Your task to perform on an android device: change notification settings in the gmail app Image 0: 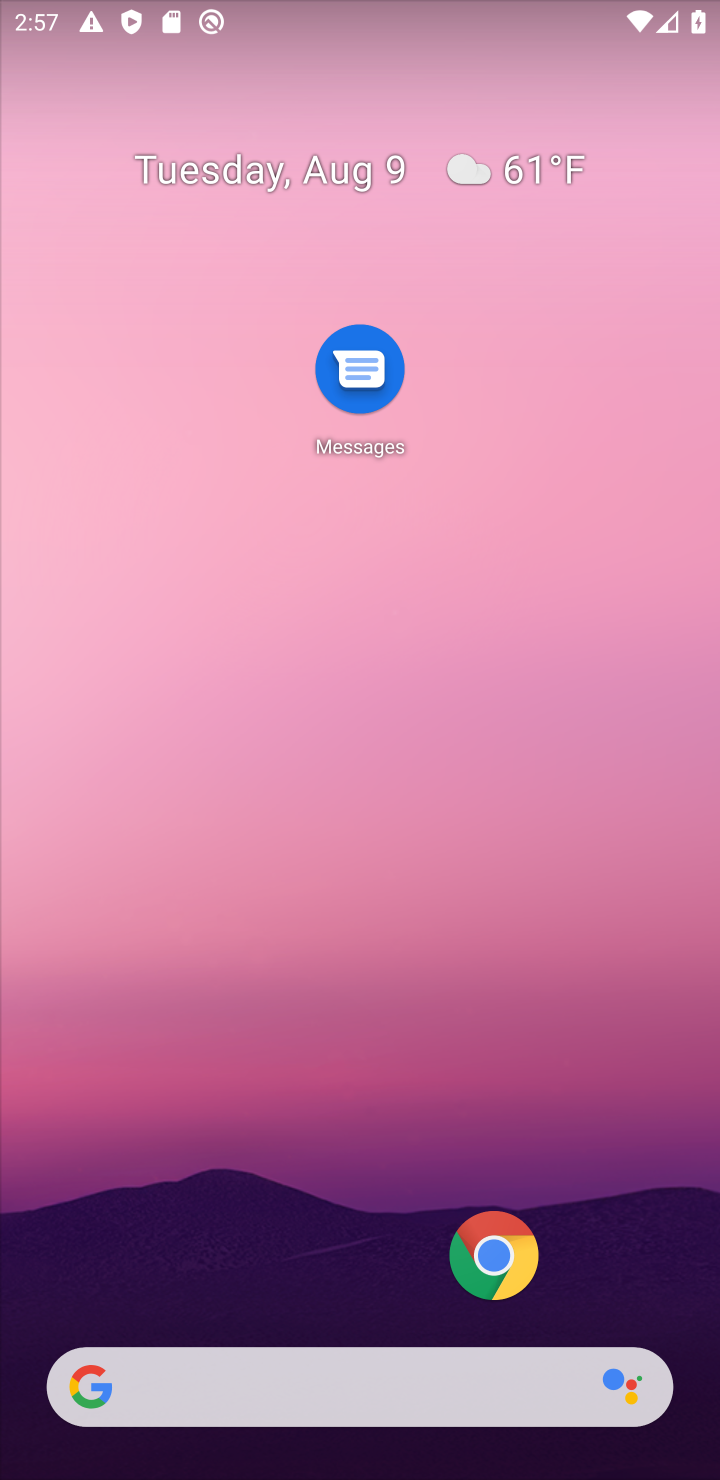
Step 0: drag from (175, 961) to (147, 458)
Your task to perform on an android device: change notification settings in the gmail app Image 1: 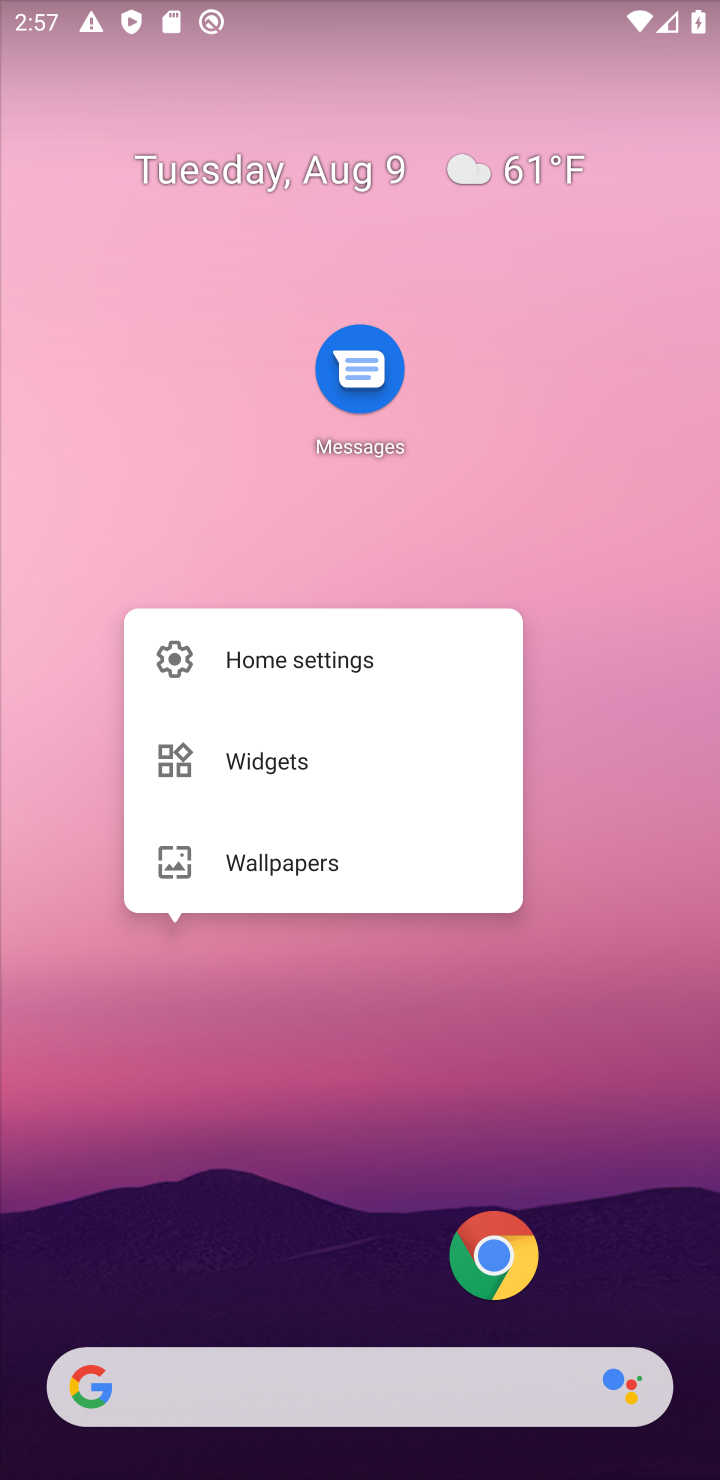
Step 1: drag from (274, 1330) to (293, 537)
Your task to perform on an android device: change notification settings in the gmail app Image 2: 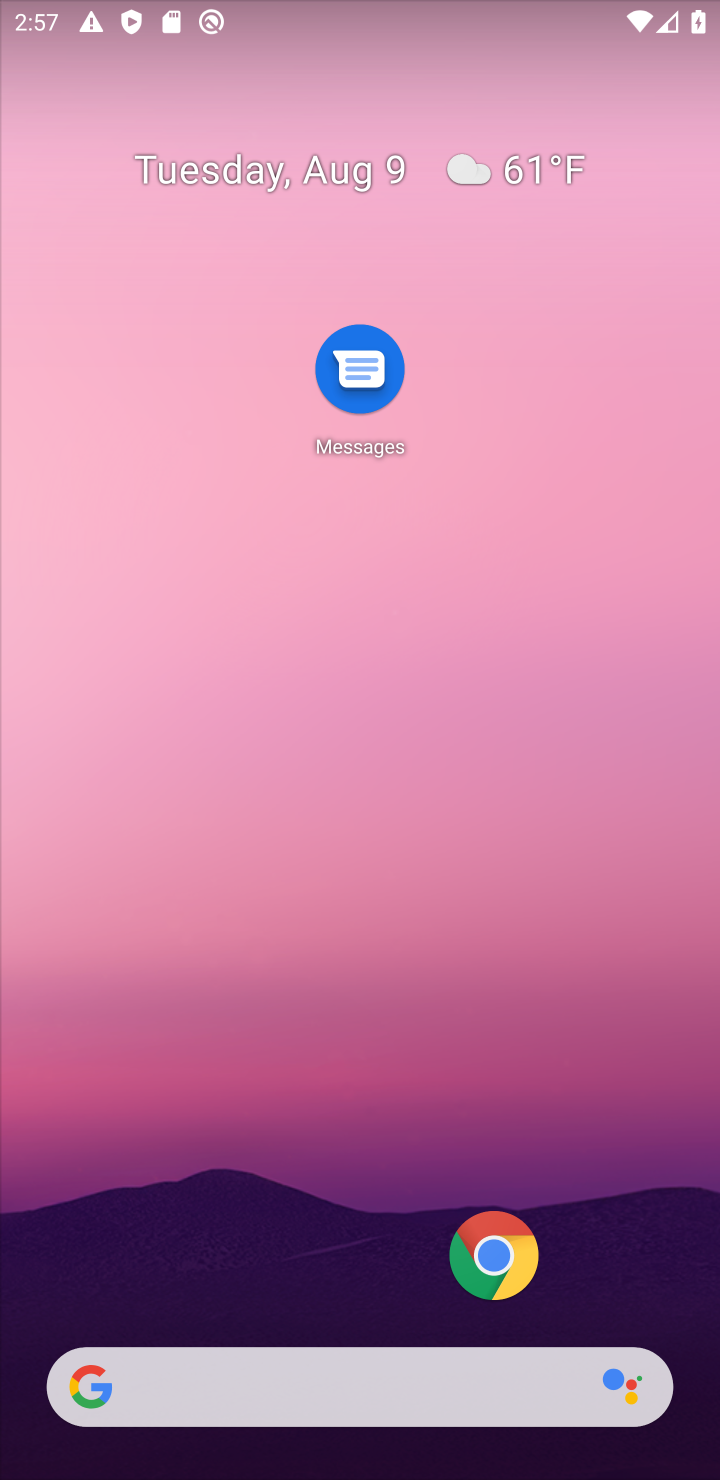
Step 2: drag from (266, 732) to (266, 262)
Your task to perform on an android device: change notification settings in the gmail app Image 3: 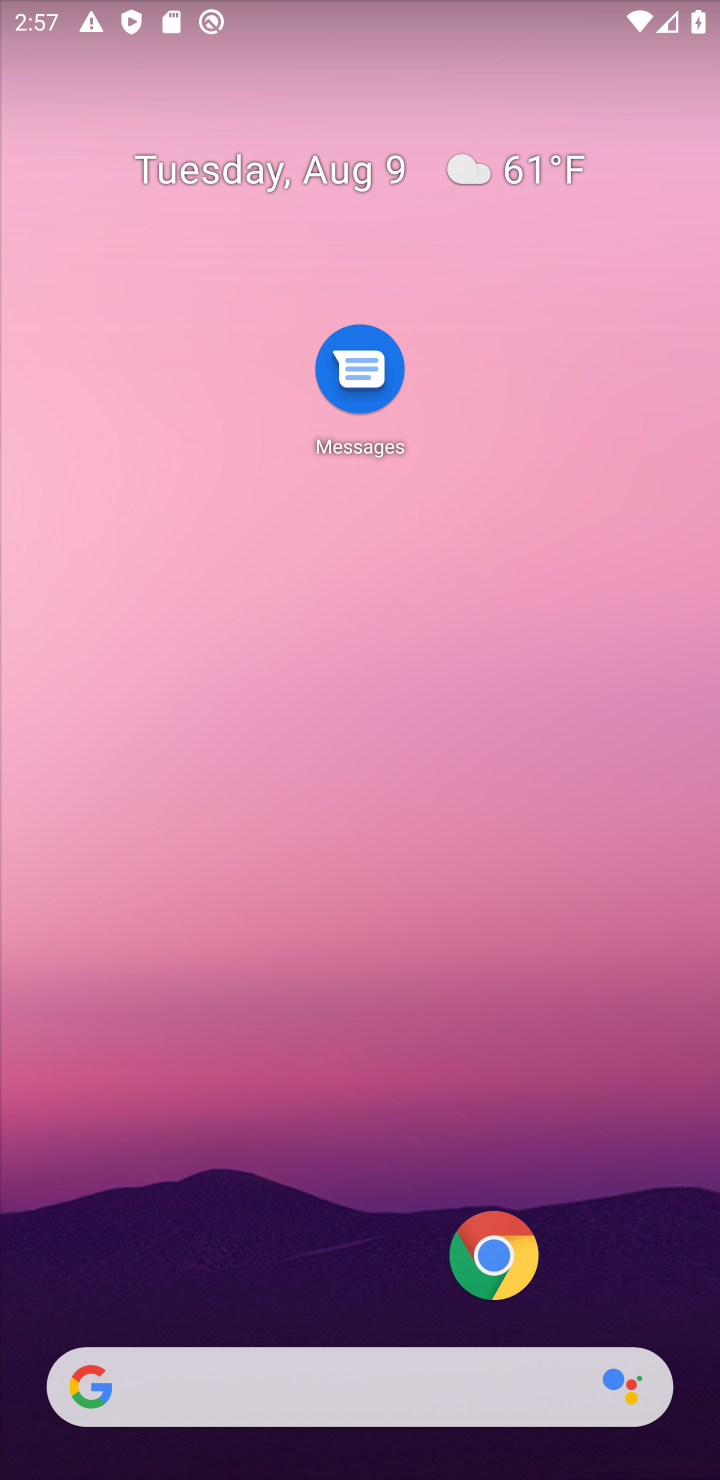
Step 3: drag from (253, 1260) to (236, 212)
Your task to perform on an android device: change notification settings in the gmail app Image 4: 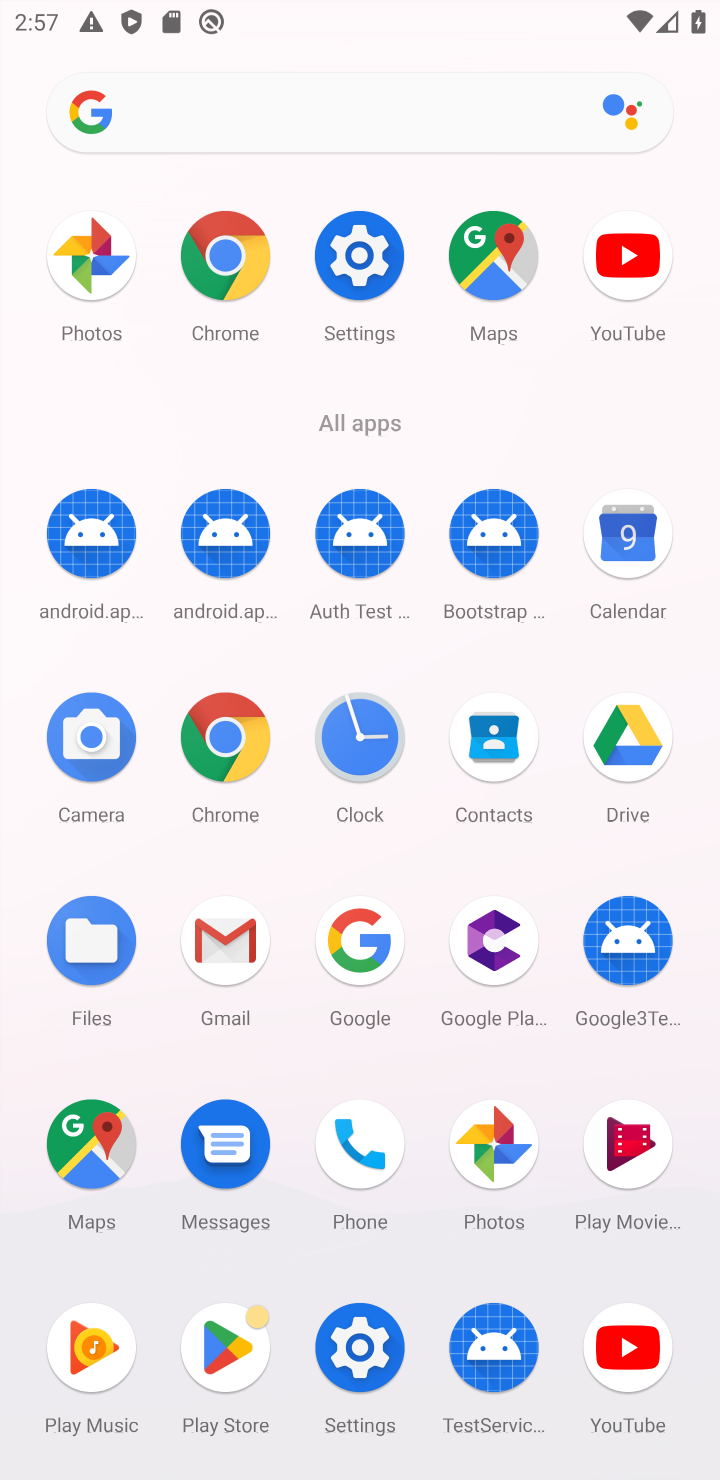
Step 4: click (210, 960)
Your task to perform on an android device: change notification settings in the gmail app Image 5: 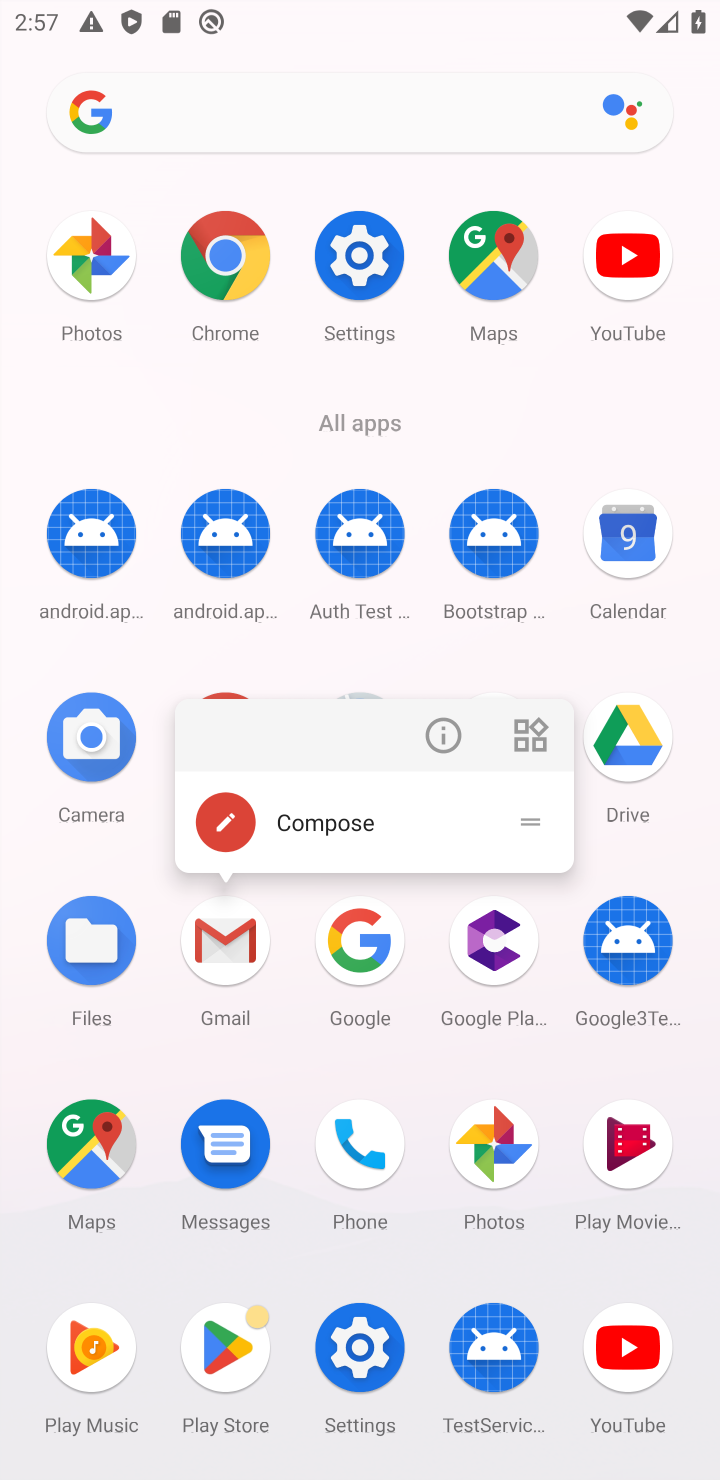
Step 5: click (195, 956)
Your task to perform on an android device: change notification settings in the gmail app Image 6: 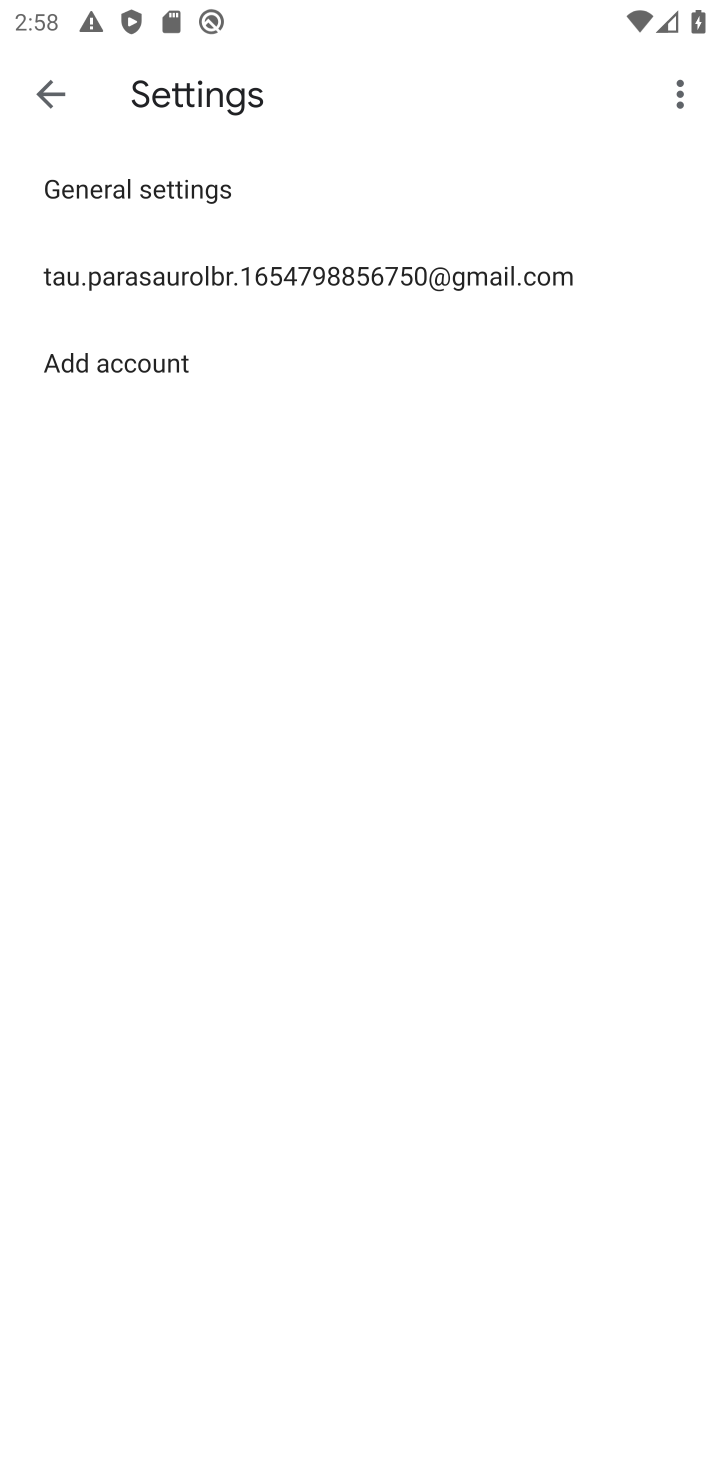
Step 6: click (125, 254)
Your task to perform on an android device: change notification settings in the gmail app Image 7: 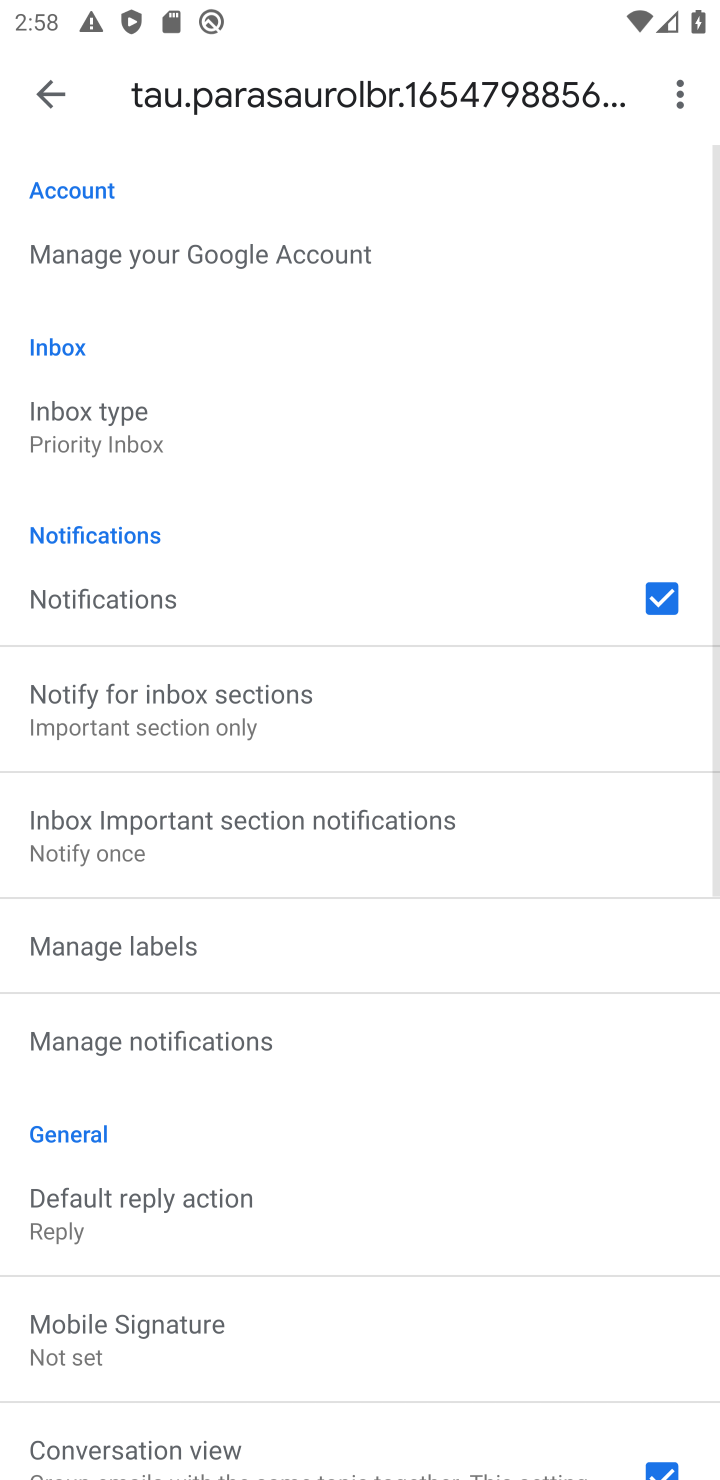
Step 7: click (170, 611)
Your task to perform on an android device: change notification settings in the gmail app Image 8: 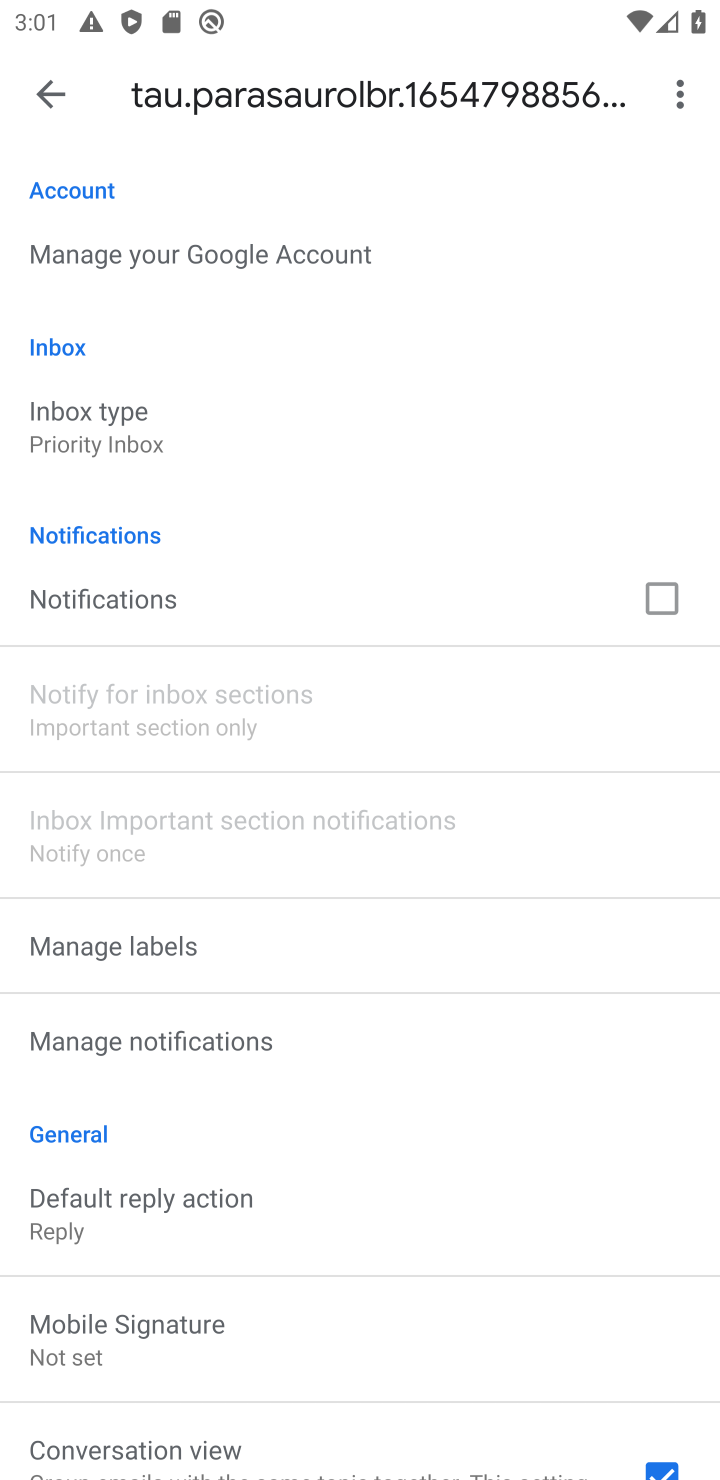
Step 8: task complete